Your task to perform on an android device: toggle show notifications on the lock screen Image 0: 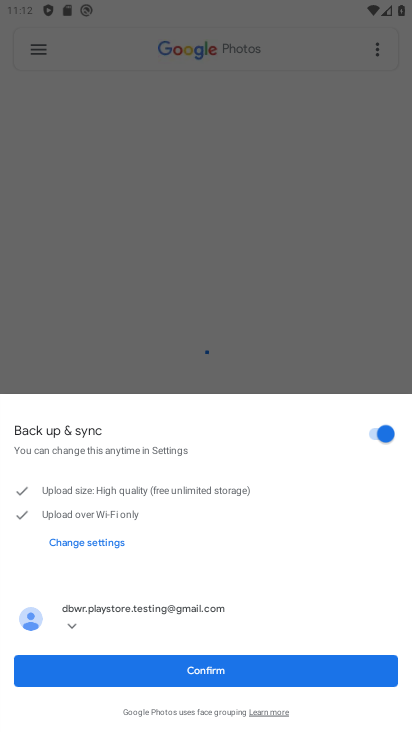
Step 0: click (287, 676)
Your task to perform on an android device: toggle show notifications on the lock screen Image 1: 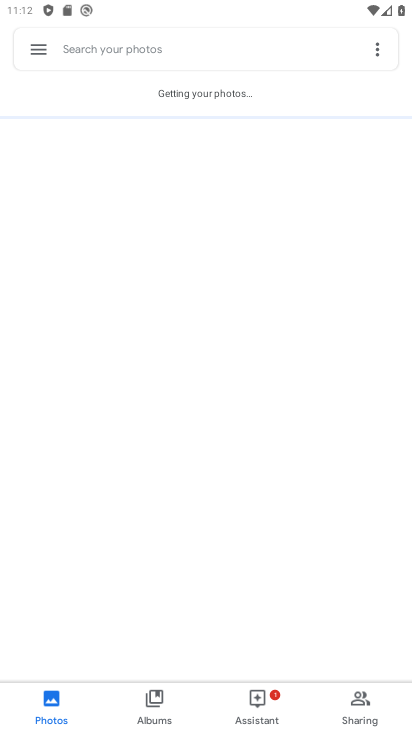
Step 1: press home button
Your task to perform on an android device: toggle show notifications on the lock screen Image 2: 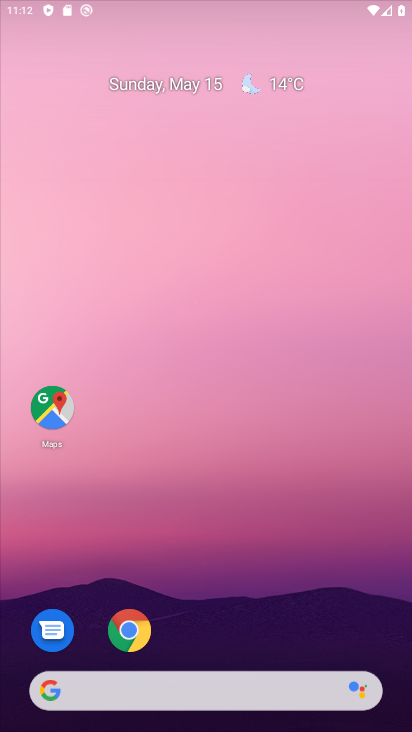
Step 2: drag from (288, 251) to (288, 158)
Your task to perform on an android device: toggle show notifications on the lock screen Image 3: 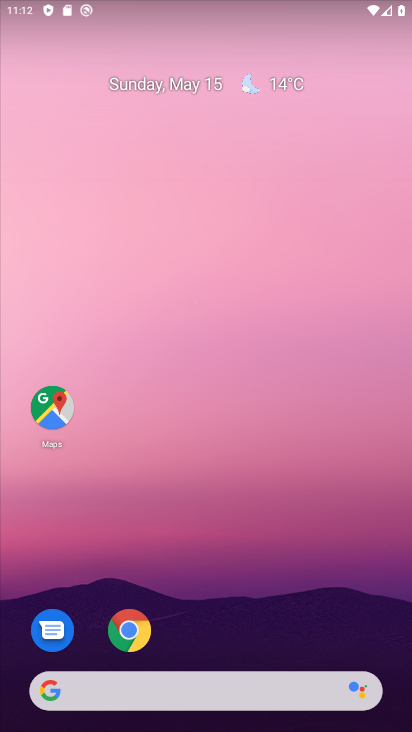
Step 3: drag from (269, 631) to (307, 143)
Your task to perform on an android device: toggle show notifications on the lock screen Image 4: 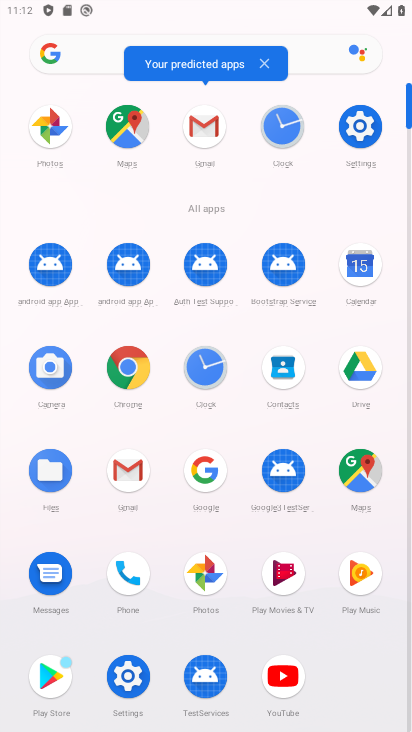
Step 4: click (370, 142)
Your task to perform on an android device: toggle show notifications on the lock screen Image 5: 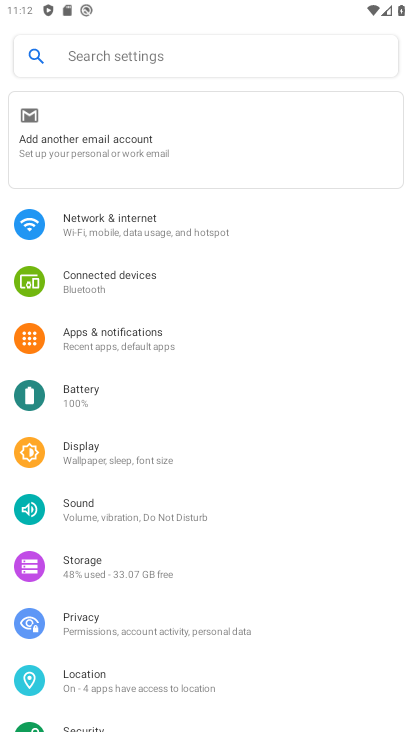
Step 5: click (155, 335)
Your task to perform on an android device: toggle show notifications on the lock screen Image 6: 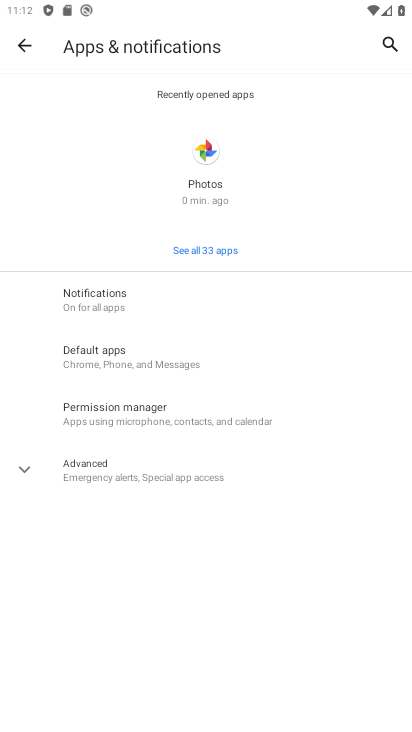
Step 6: click (218, 304)
Your task to perform on an android device: toggle show notifications on the lock screen Image 7: 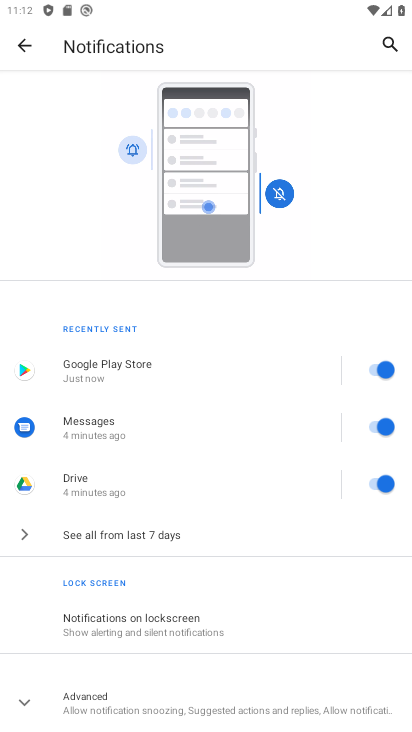
Step 7: drag from (284, 647) to (279, 333)
Your task to perform on an android device: toggle show notifications on the lock screen Image 8: 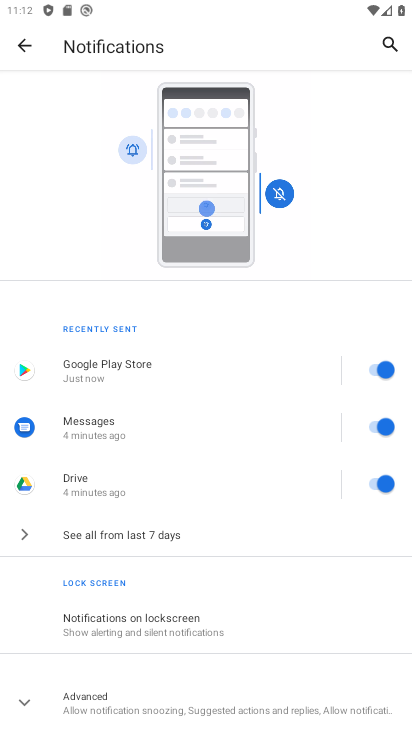
Step 8: click (180, 622)
Your task to perform on an android device: toggle show notifications on the lock screen Image 9: 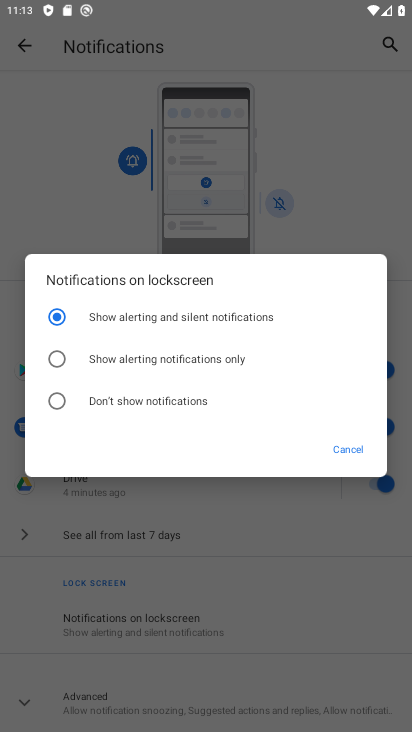
Step 9: click (231, 366)
Your task to perform on an android device: toggle show notifications on the lock screen Image 10: 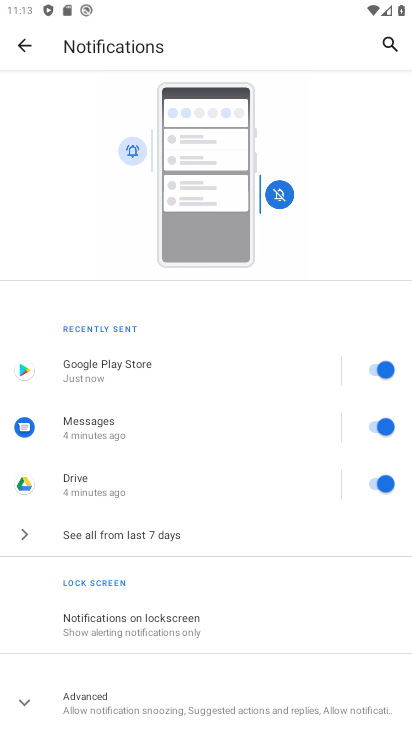
Step 10: task complete